Your task to perform on an android device: find which apps use the phone's location Image 0: 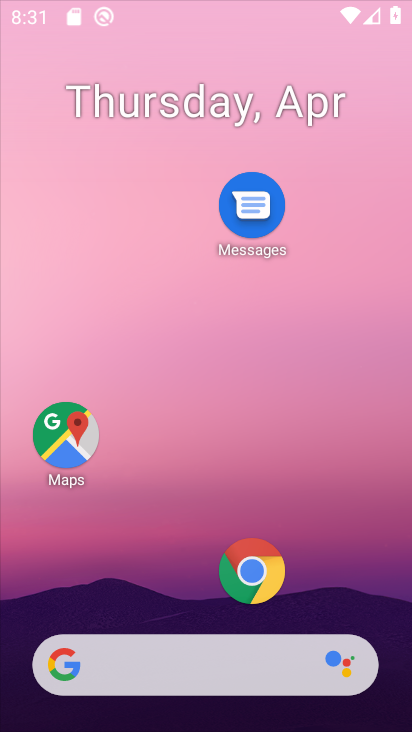
Step 0: click (248, 565)
Your task to perform on an android device: find which apps use the phone's location Image 1: 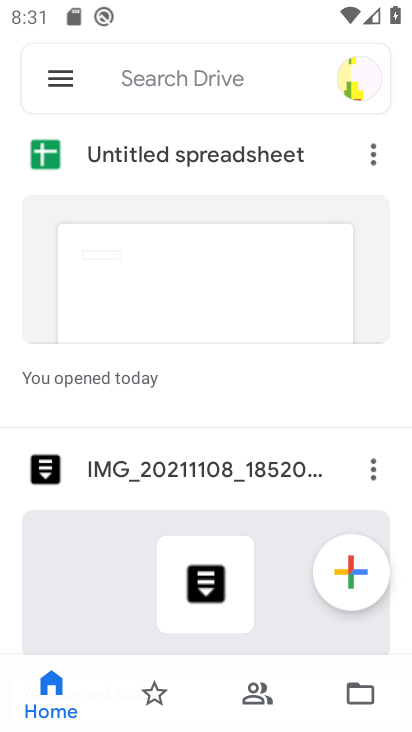
Step 1: press home button
Your task to perform on an android device: find which apps use the phone's location Image 2: 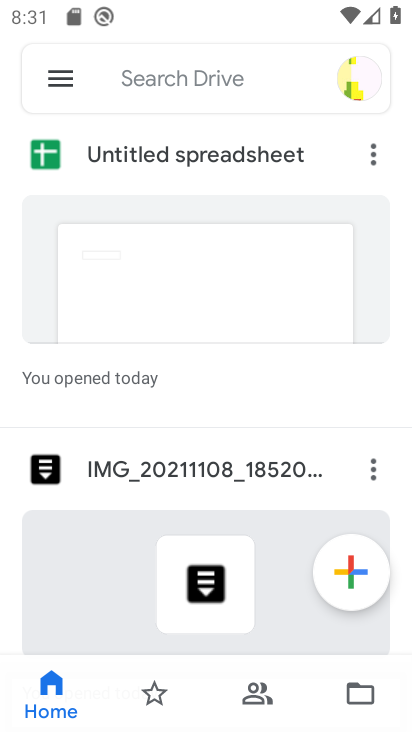
Step 2: press home button
Your task to perform on an android device: find which apps use the phone's location Image 3: 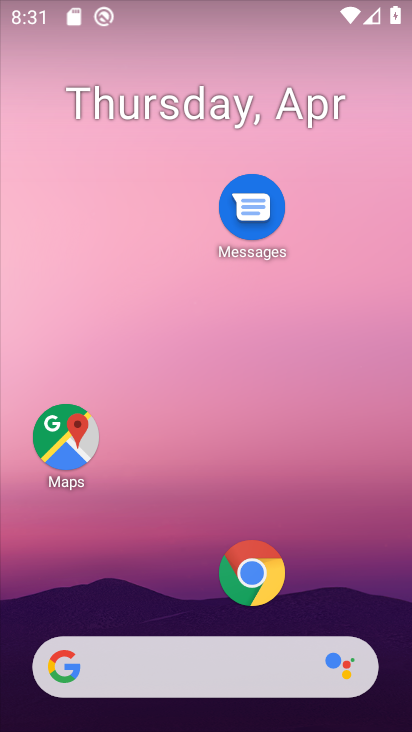
Step 3: drag from (195, 607) to (180, 99)
Your task to perform on an android device: find which apps use the phone's location Image 4: 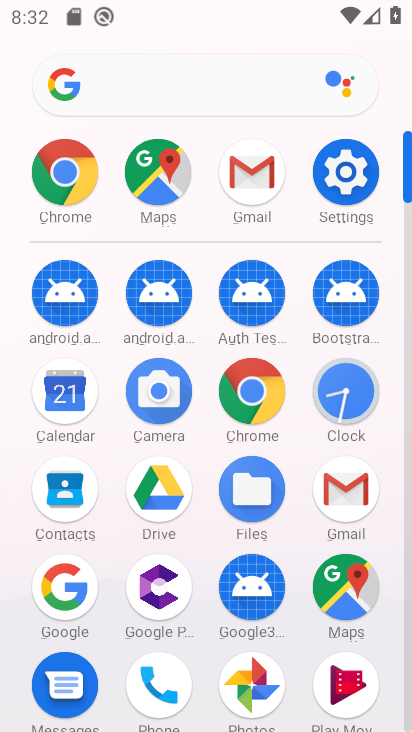
Step 4: drag from (202, 647) to (198, 207)
Your task to perform on an android device: find which apps use the phone's location Image 5: 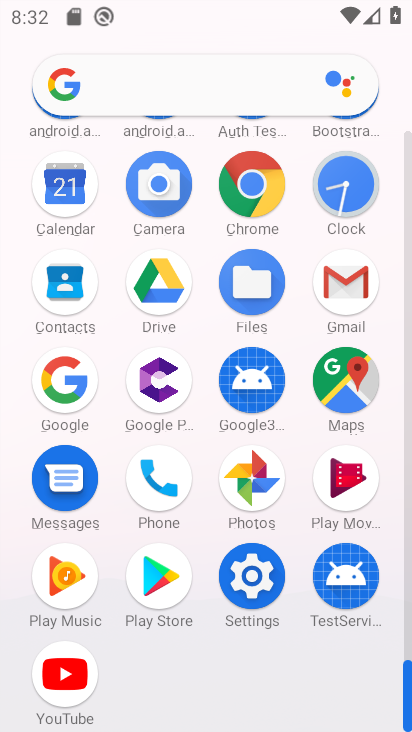
Step 5: click (248, 568)
Your task to perform on an android device: find which apps use the phone's location Image 6: 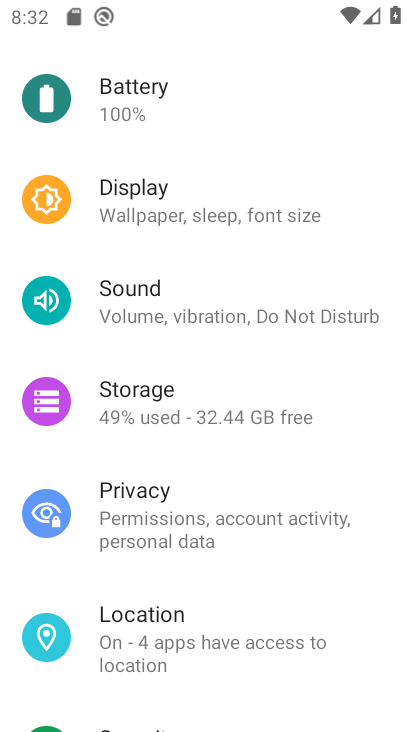
Step 6: click (203, 616)
Your task to perform on an android device: find which apps use the phone's location Image 7: 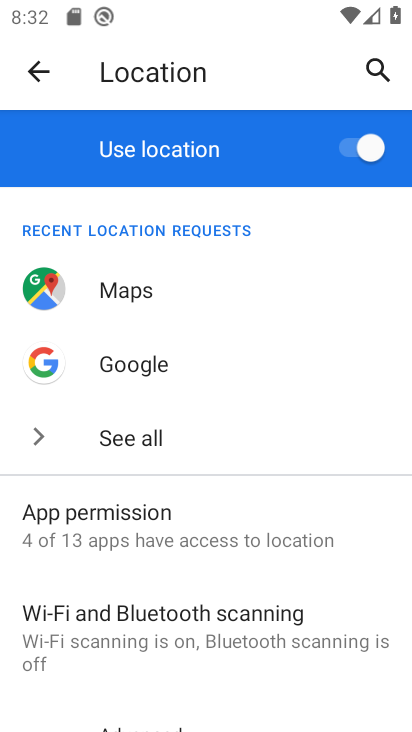
Step 7: click (186, 512)
Your task to perform on an android device: find which apps use the phone's location Image 8: 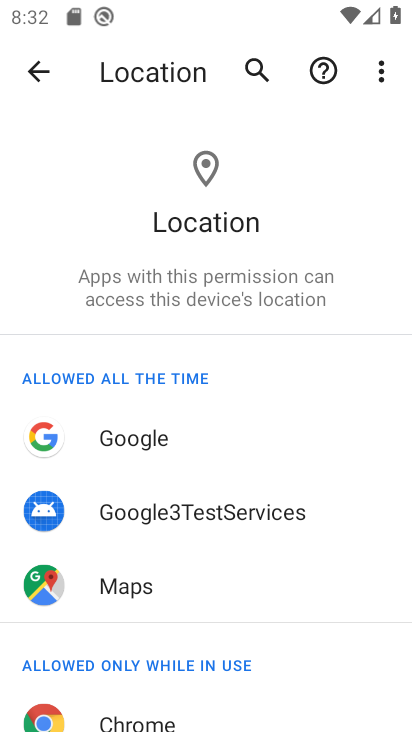
Step 8: task complete